Your task to perform on an android device: Open Chrome and go to settings Image 0: 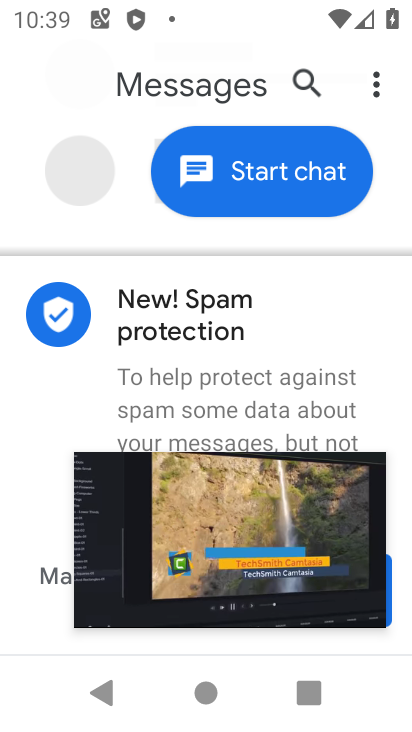
Step 0: click (252, 513)
Your task to perform on an android device: Open Chrome and go to settings Image 1: 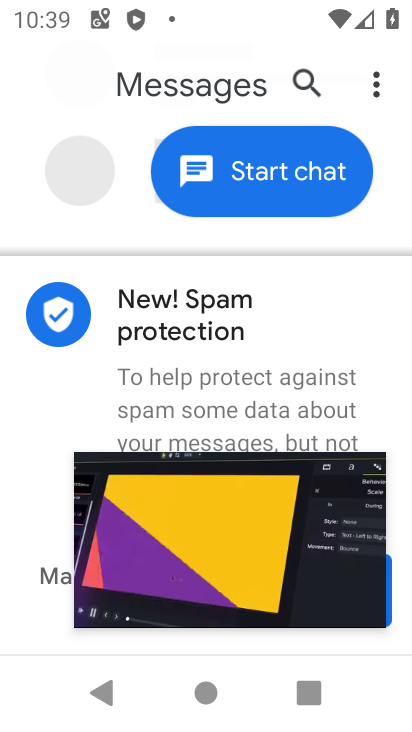
Step 1: press home button
Your task to perform on an android device: Open Chrome and go to settings Image 2: 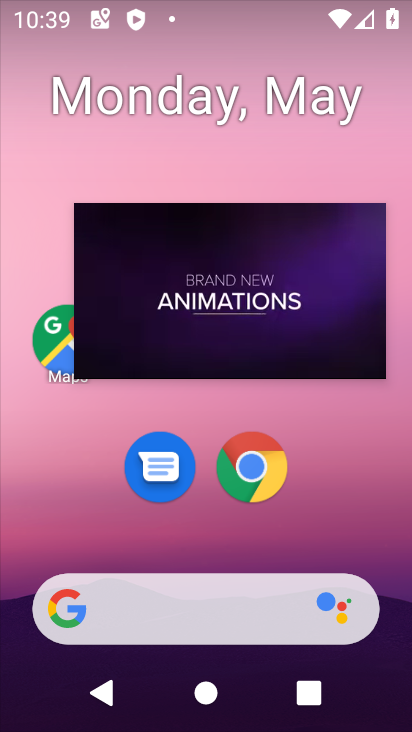
Step 2: click (348, 233)
Your task to perform on an android device: Open Chrome and go to settings Image 3: 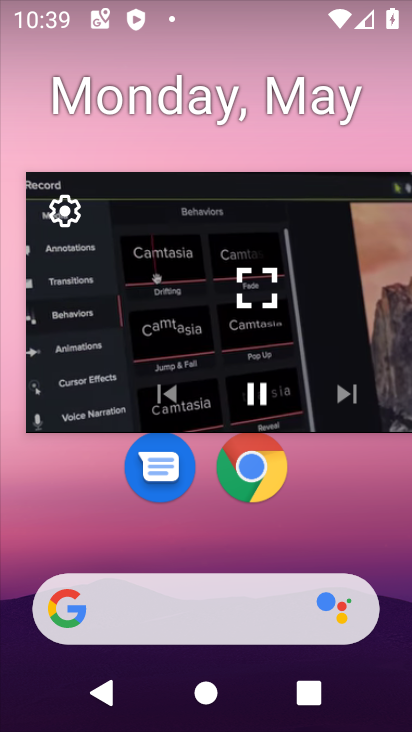
Step 3: click (389, 225)
Your task to perform on an android device: Open Chrome and go to settings Image 4: 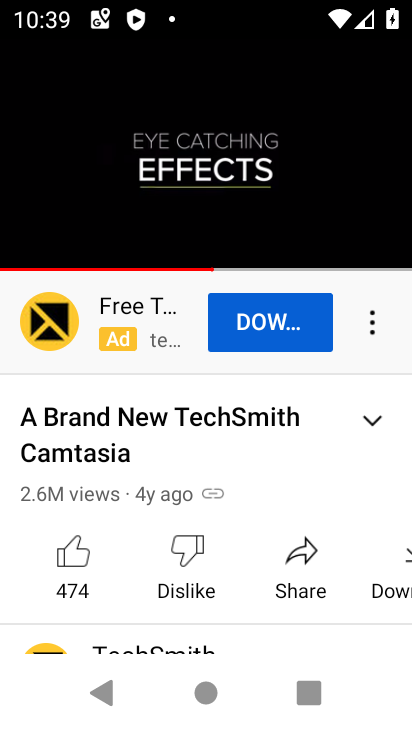
Step 4: press home button
Your task to perform on an android device: Open Chrome and go to settings Image 5: 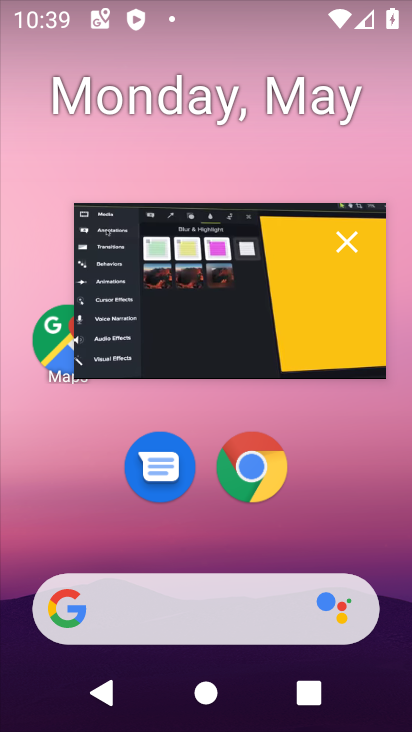
Step 5: click (342, 232)
Your task to perform on an android device: Open Chrome and go to settings Image 6: 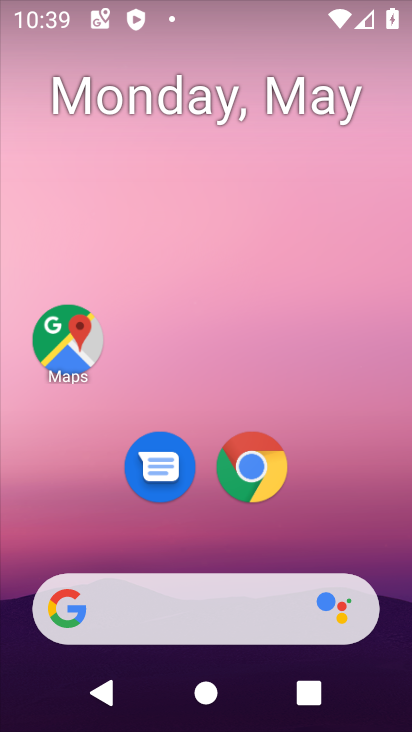
Step 6: click (245, 467)
Your task to perform on an android device: Open Chrome and go to settings Image 7: 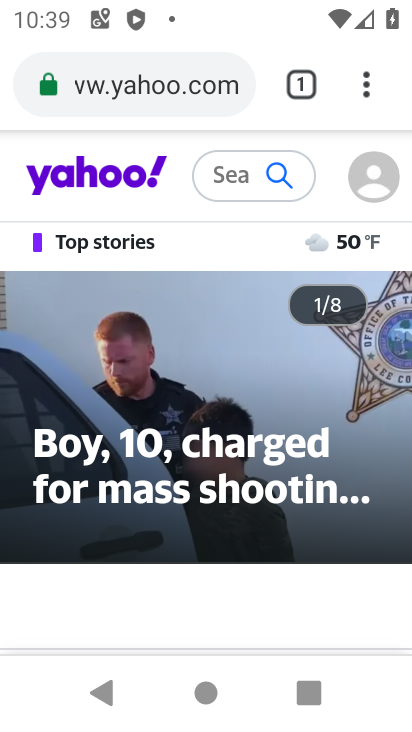
Step 7: click (363, 85)
Your task to perform on an android device: Open Chrome and go to settings Image 8: 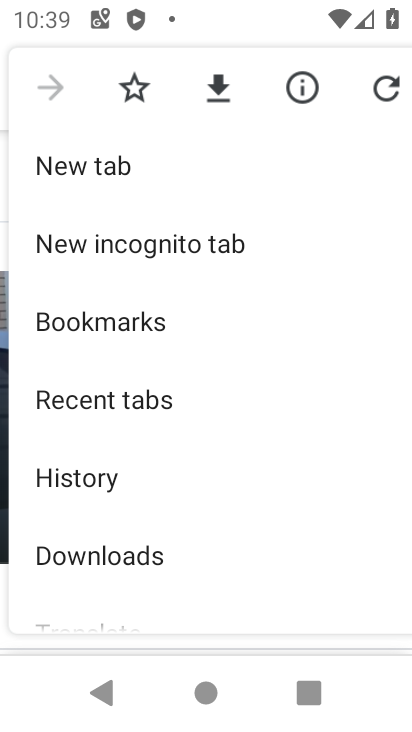
Step 8: click (210, 234)
Your task to perform on an android device: Open Chrome and go to settings Image 9: 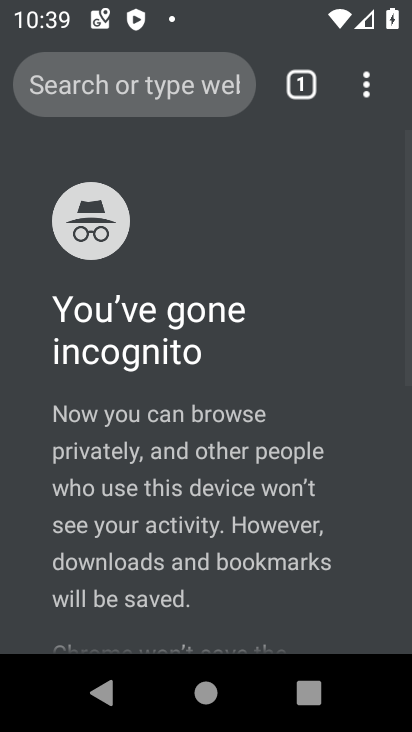
Step 9: click (370, 83)
Your task to perform on an android device: Open Chrome and go to settings Image 10: 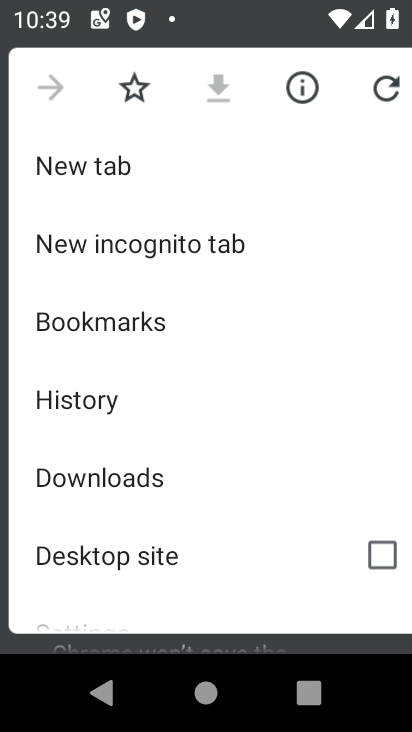
Step 10: drag from (281, 556) to (297, 217)
Your task to perform on an android device: Open Chrome and go to settings Image 11: 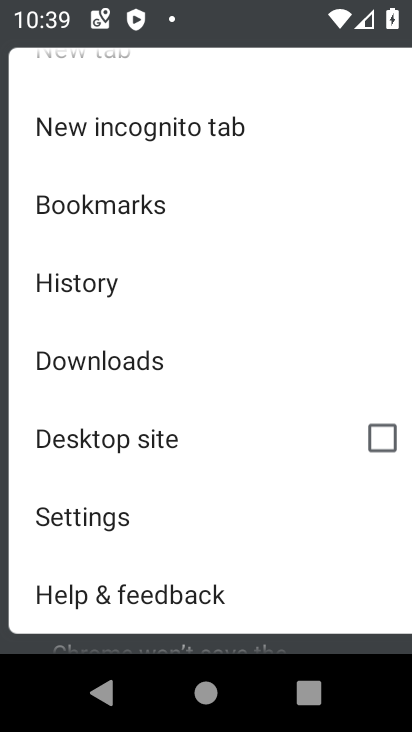
Step 11: click (57, 506)
Your task to perform on an android device: Open Chrome and go to settings Image 12: 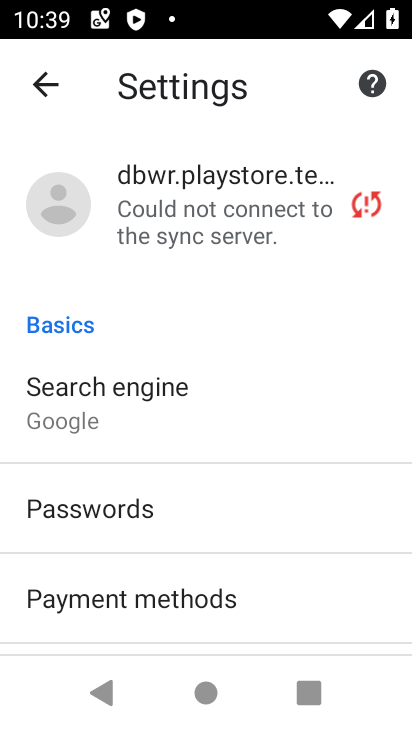
Step 12: click (346, 304)
Your task to perform on an android device: Open Chrome and go to settings Image 13: 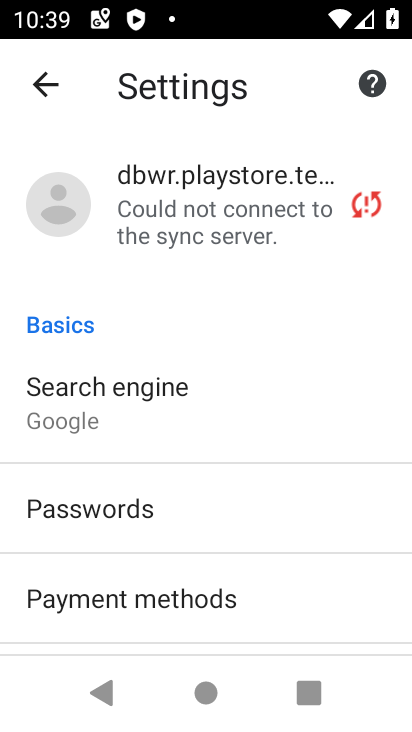
Step 13: task complete